Your task to perform on an android device: turn off priority inbox in the gmail app Image 0: 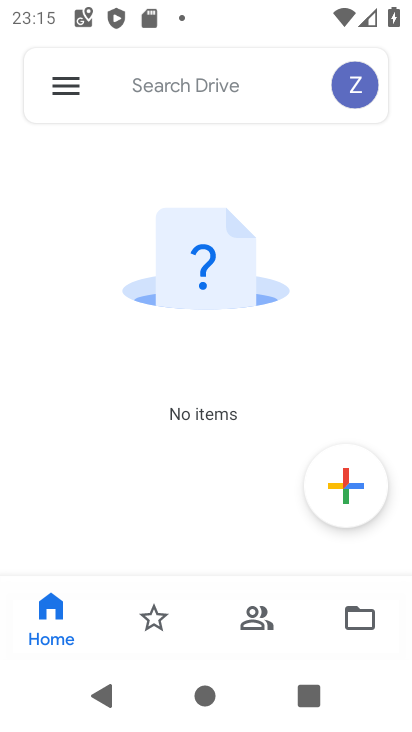
Step 0: press home button
Your task to perform on an android device: turn off priority inbox in the gmail app Image 1: 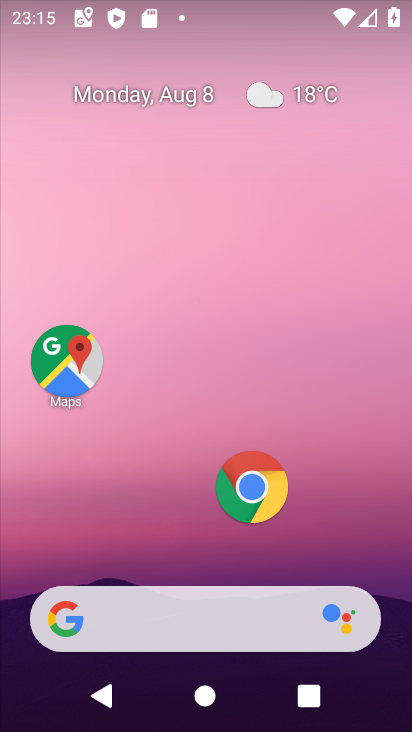
Step 1: drag from (228, 572) to (263, 155)
Your task to perform on an android device: turn off priority inbox in the gmail app Image 2: 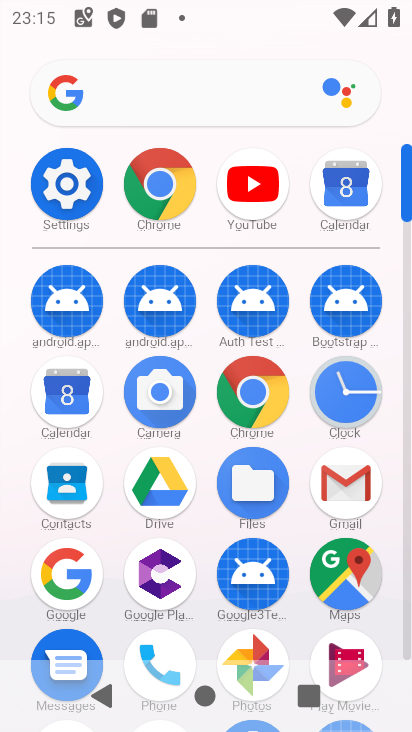
Step 2: click (343, 489)
Your task to perform on an android device: turn off priority inbox in the gmail app Image 3: 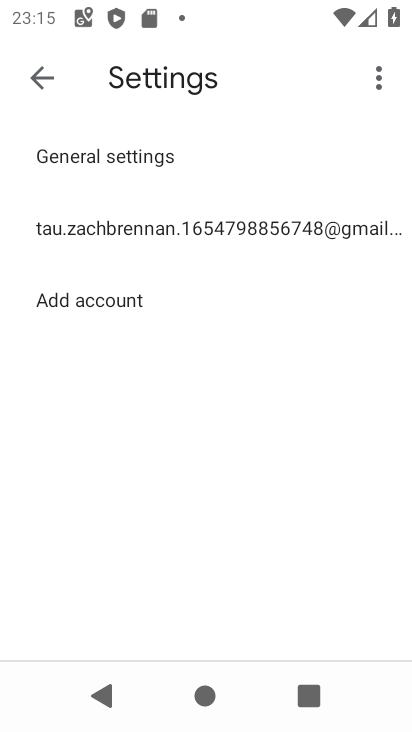
Step 3: click (224, 231)
Your task to perform on an android device: turn off priority inbox in the gmail app Image 4: 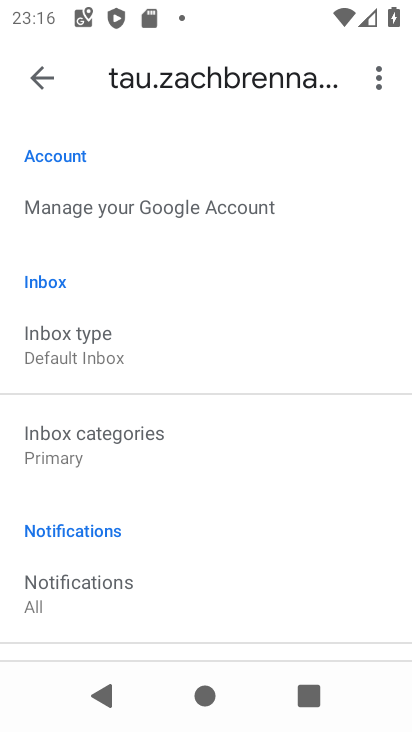
Step 4: click (71, 346)
Your task to perform on an android device: turn off priority inbox in the gmail app Image 5: 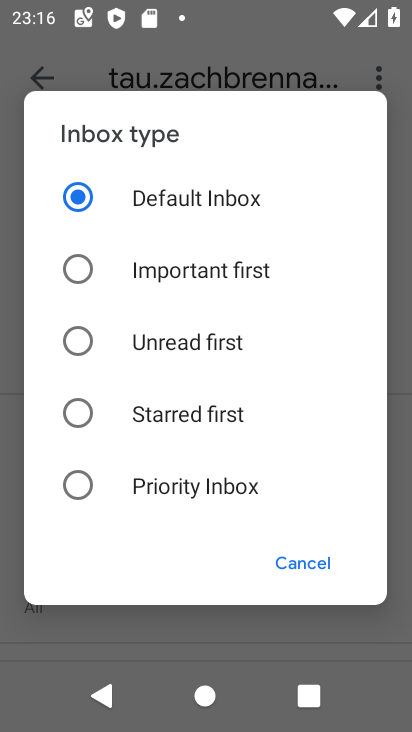
Step 5: click (79, 484)
Your task to perform on an android device: turn off priority inbox in the gmail app Image 6: 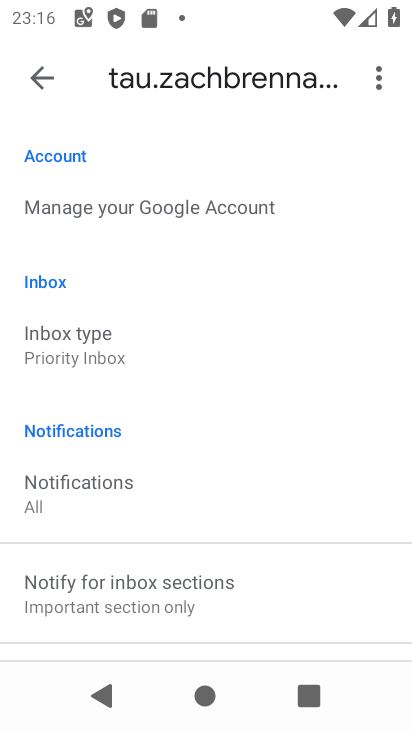
Step 6: task complete